Your task to perform on an android device: turn on improve location accuracy Image 0: 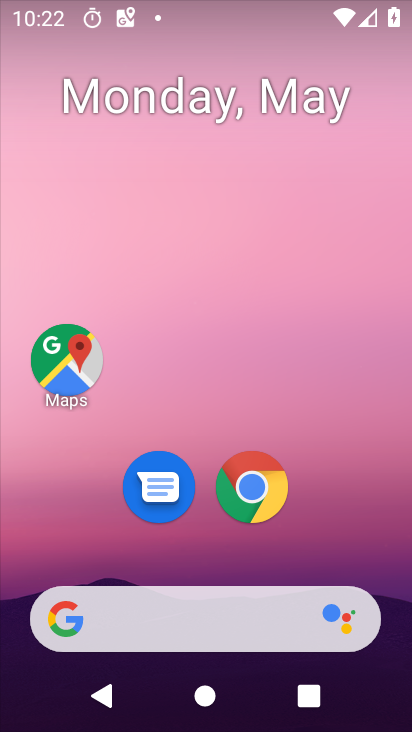
Step 0: drag from (309, 533) to (398, 168)
Your task to perform on an android device: turn on improve location accuracy Image 1: 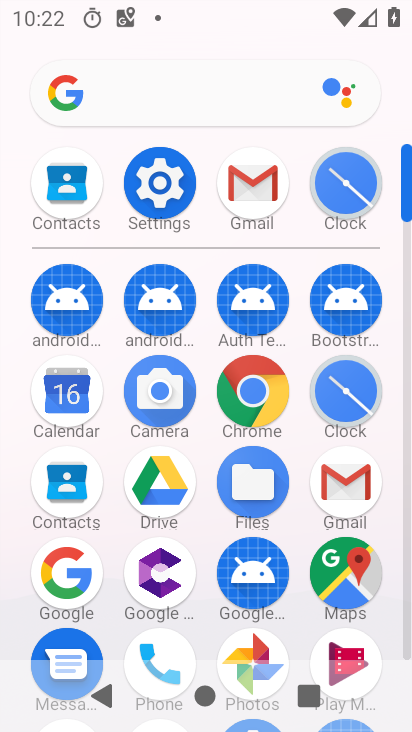
Step 1: click (153, 177)
Your task to perform on an android device: turn on improve location accuracy Image 2: 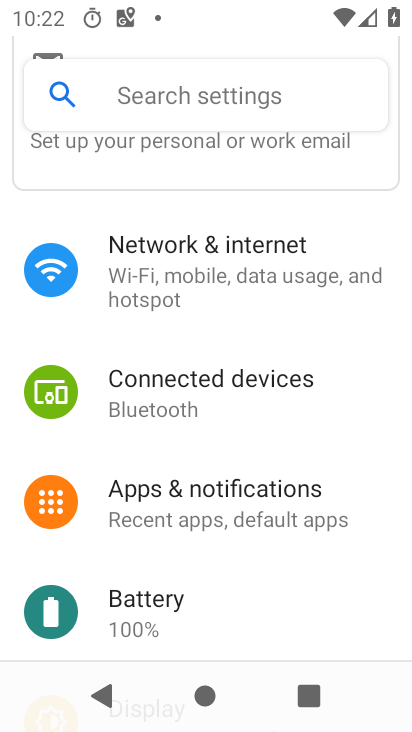
Step 2: drag from (204, 616) to (293, 433)
Your task to perform on an android device: turn on improve location accuracy Image 3: 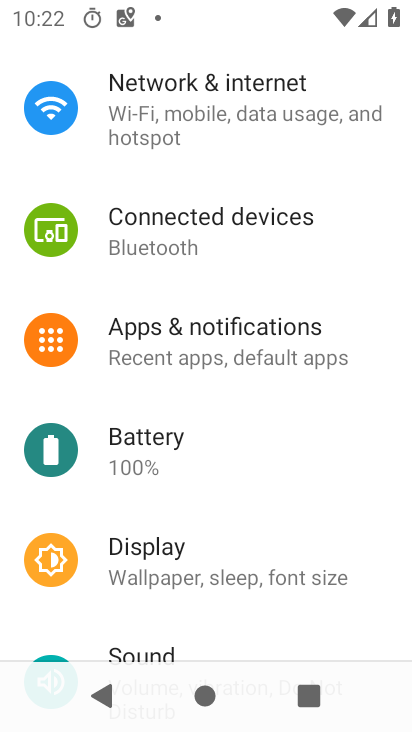
Step 3: drag from (305, 574) to (340, 411)
Your task to perform on an android device: turn on improve location accuracy Image 4: 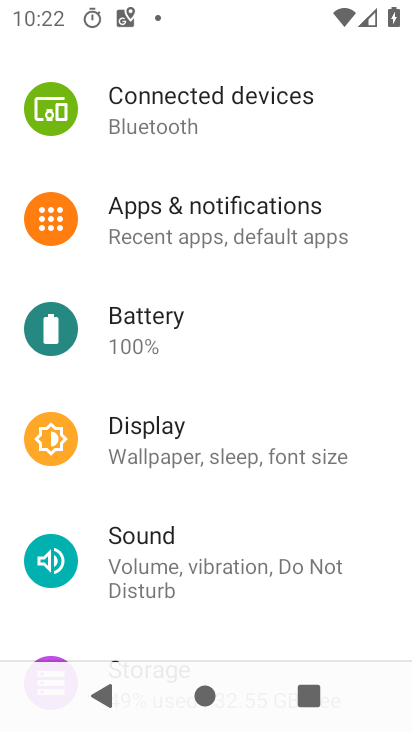
Step 4: drag from (334, 538) to (333, 425)
Your task to perform on an android device: turn on improve location accuracy Image 5: 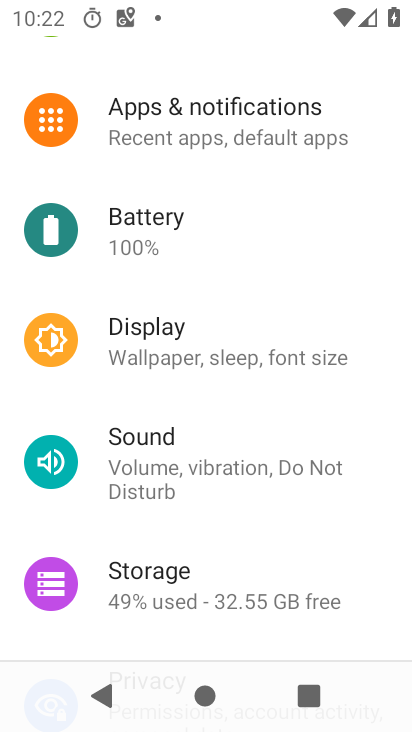
Step 5: drag from (316, 545) to (346, 428)
Your task to perform on an android device: turn on improve location accuracy Image 6: 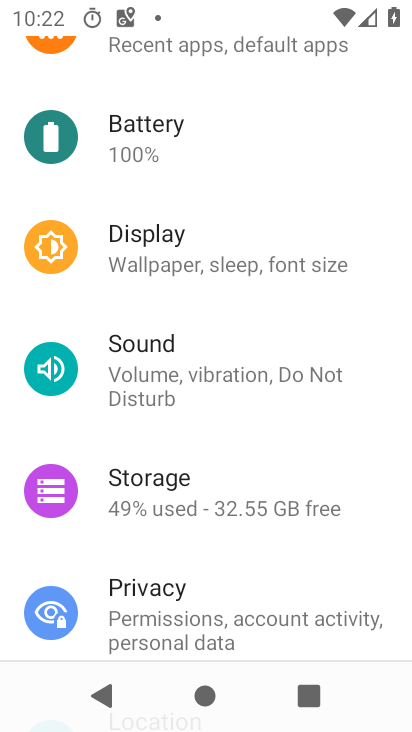
Step 6: drag from (295, 553) to (299, 452)
Your task to perform on an android device: turn on improve location accuracy Image 7: 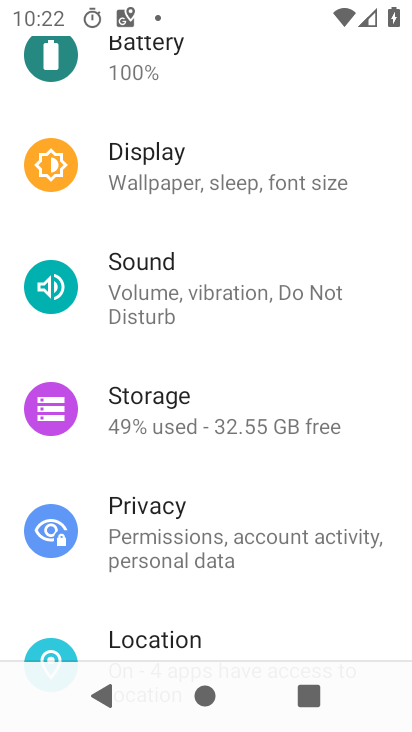
Step 7: drag from (299, 562) to (306, 488)
Your task to perform on an android device: turn on improve location accuracy Image 8: 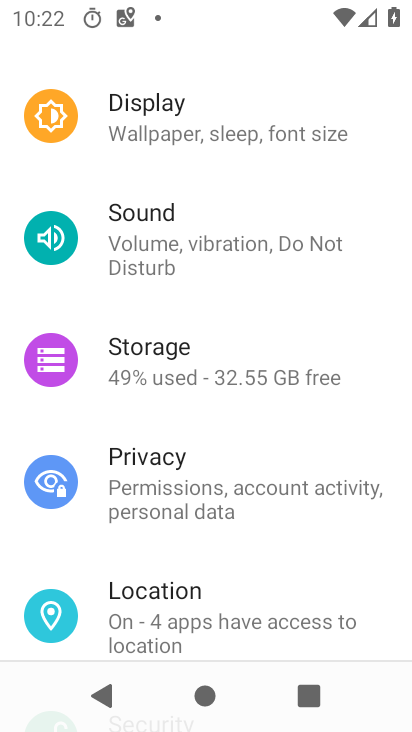
Step 8: click (269, 606)
Your task to perform on an android device: turn on improve location accuracy Image 9: 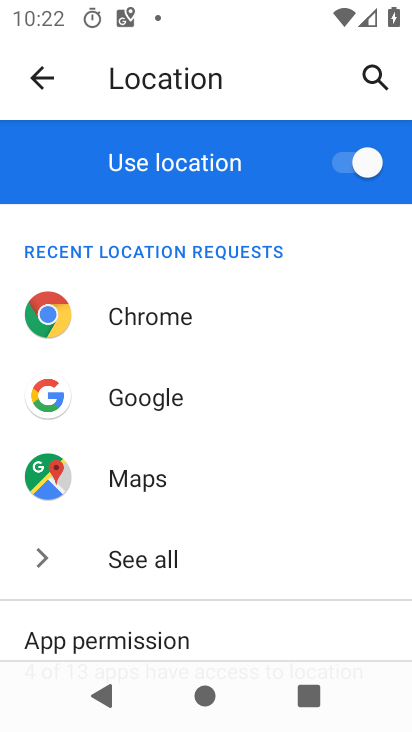
Step 9: drag from (244, 615) to (283, 431)
Your task to perform on an android device: turn on improve location accuracy Image 10: 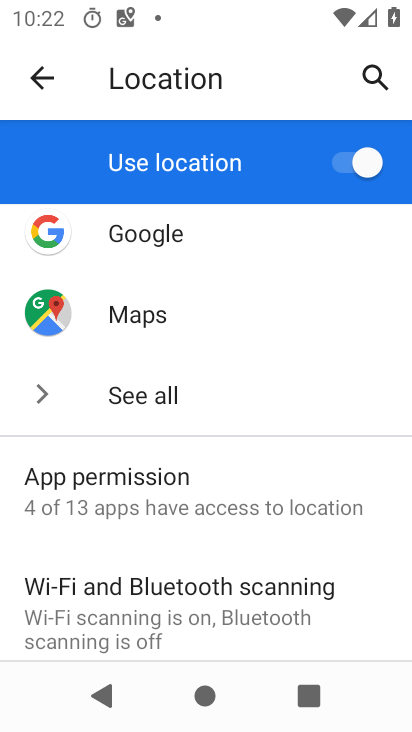
Step 10: drag from (227, 590) to (269, 420)
Your task to perform on an android device: turn on improve location accuracy Image 11: 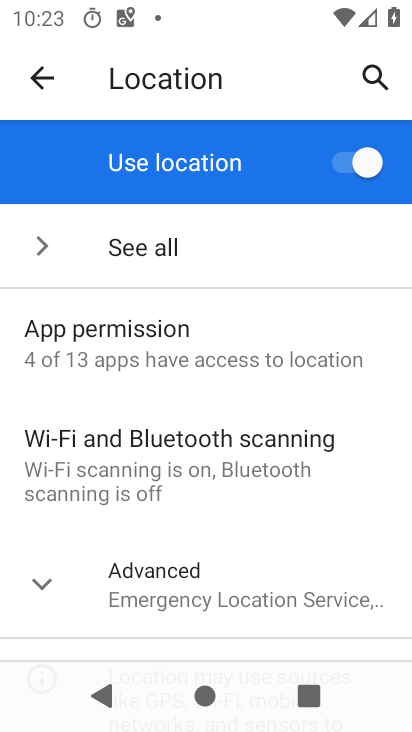
Step 11: click (220, 599)
Your task to perform on an android device: turn on improve location accuracy Image 12: 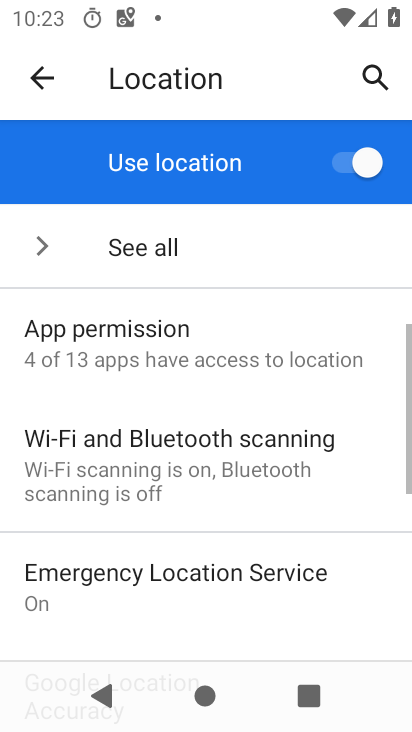
Step 12: drag from (233, 591) to (315, 322)
Your task to perform on an android device: turn on improve location accuracy Image 13: 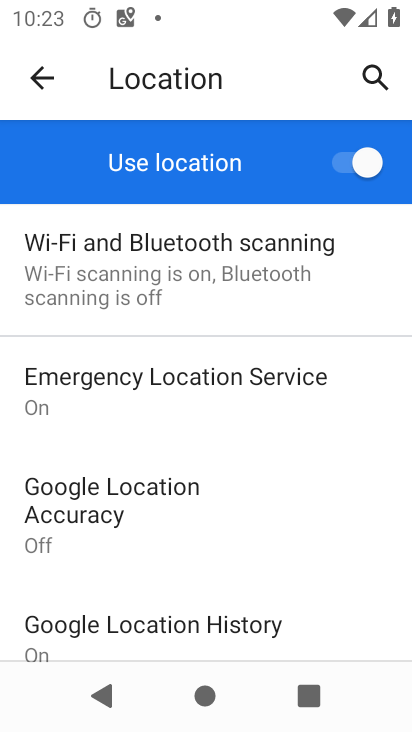
Step 13: click (192, 512)
Your task to perform on an android device: turn on improve location accuracy Image 14: 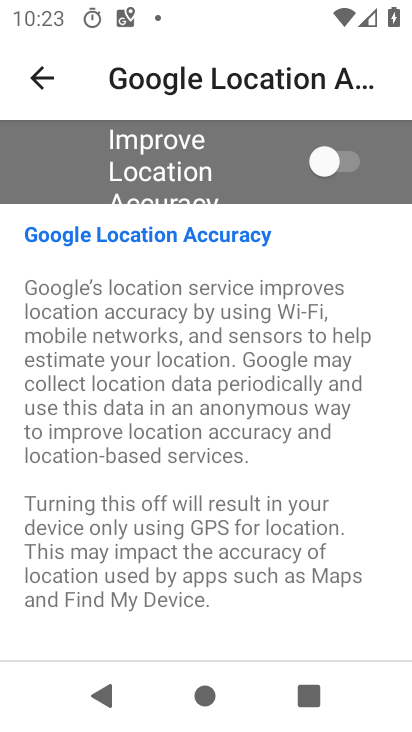
Step 14: click (331, 166)
Your task to perform on an android device: turn on improve location accuracy Image 15: 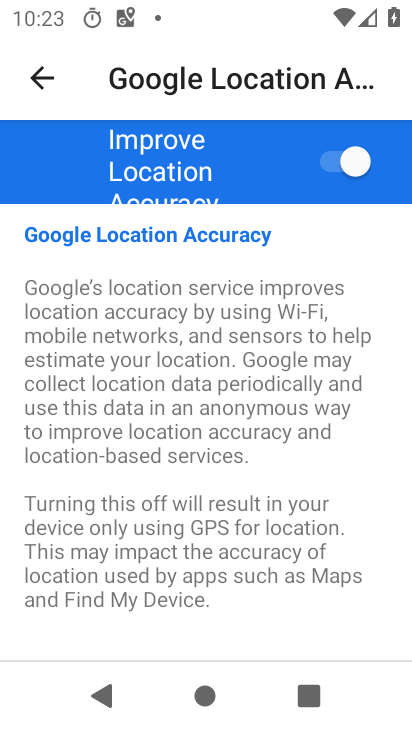
Step 15: task complete